Your task to perform on an android device: Go to Amazon Image 0: 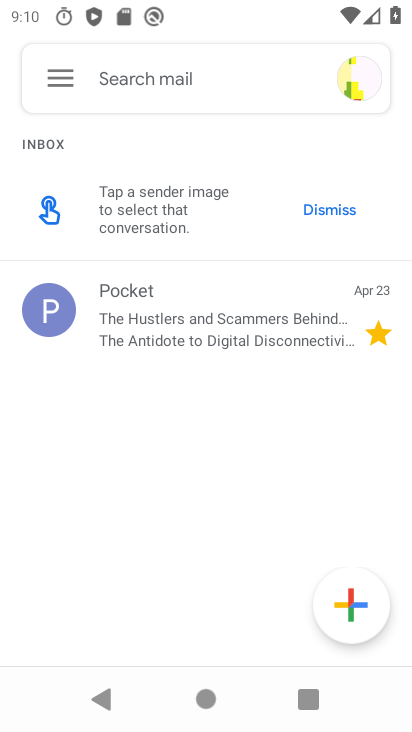
Step 0: click (202, 706)
Your task to perform on an android device: Go to Amazon Image 1: 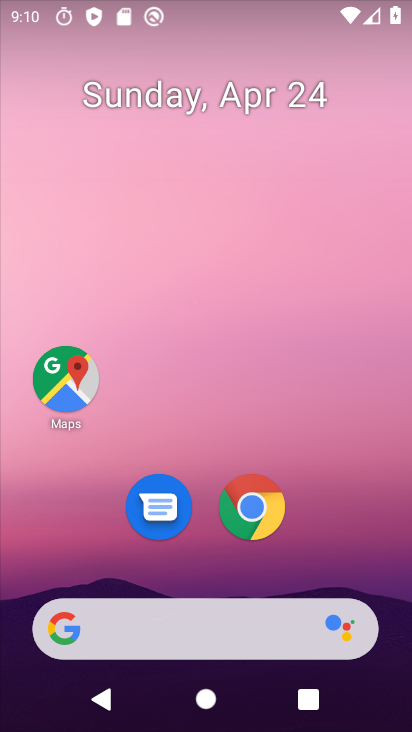
Step 1: drag from (334, 468) to (314, 49)
Your task to perform on an android device: Go to Amazon Image 2: 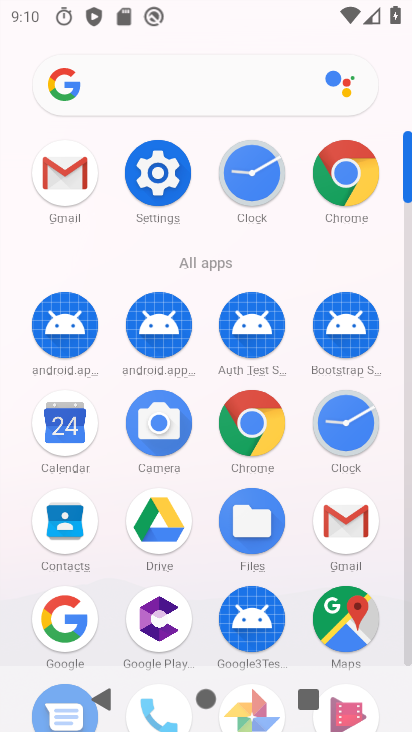
Step 2: drag from (394, 571) to (409, 386)
Your task to perform on an android device: Go to Amazon Image 3: 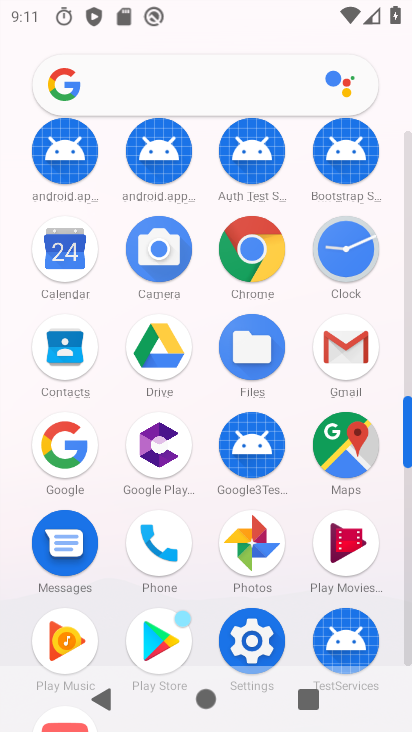
Step 3: drag from (388, 572) to (398, 145)
Your task to perform on an android device: Go to Amazon Image 4: 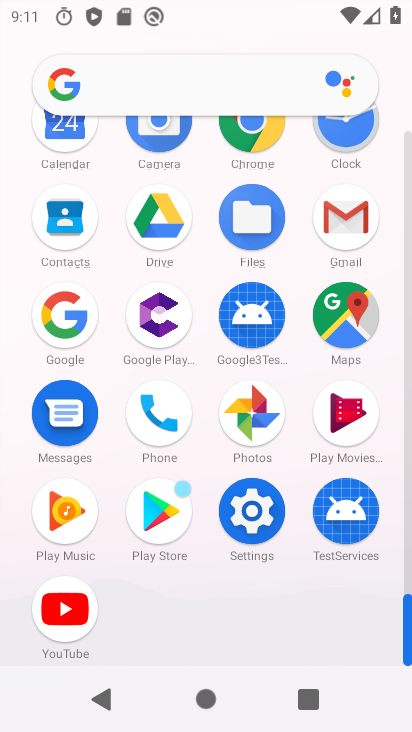
Step 4: click (239, 126)
Your task to perform on an android device: Go to Amazon Image 5: 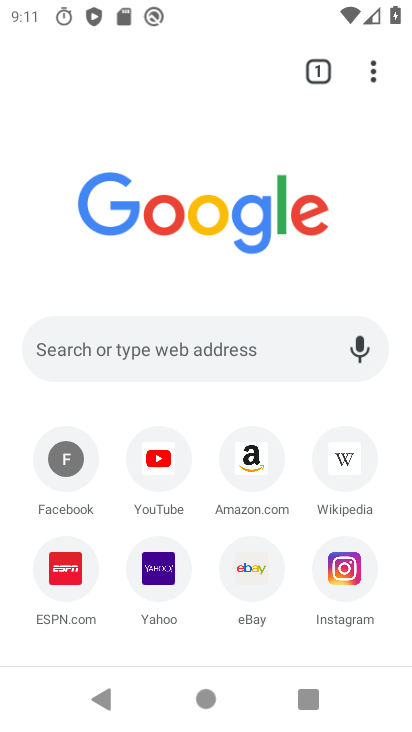
Step 5: drag from (385, 586) to (353, 336)
Your task to perform on an android device: Go to Amazon Image 6: 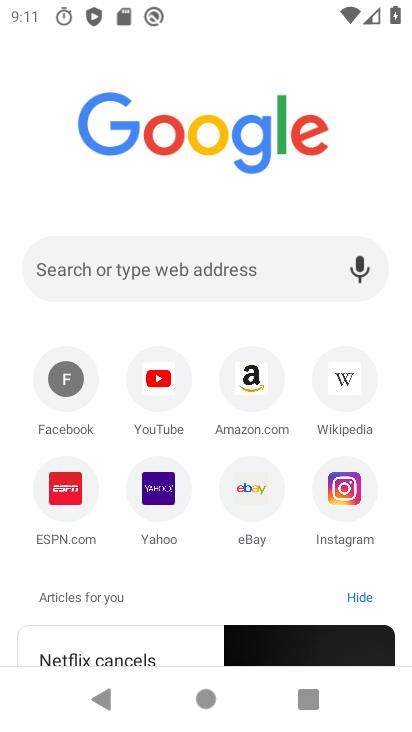
Step 6: click (358, 593)
Your task to perform on an android device: Go to Amazon Image 7: 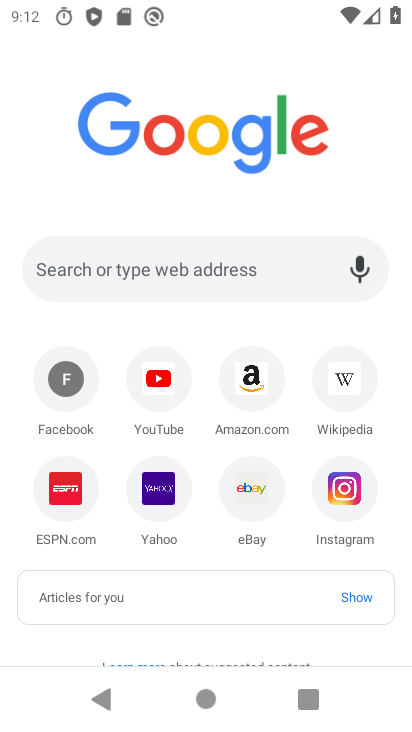
Step 7: click (176, 291)
Your task to perform on an android device: Go to Amazon Image 8: 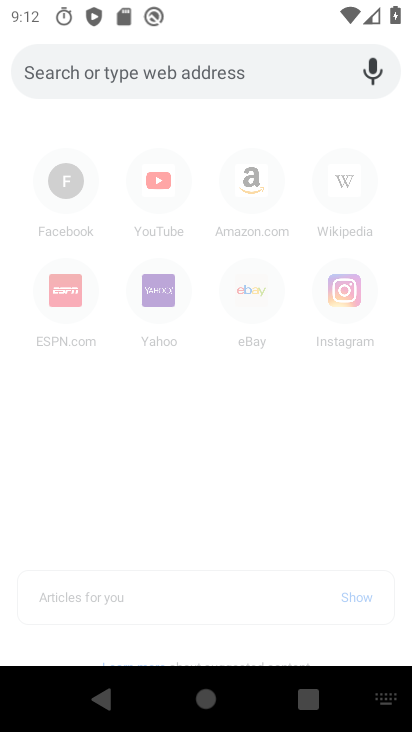
Step 8: click (255, 193)
Your task to perform on an android device: Go to Amazon Image 9: 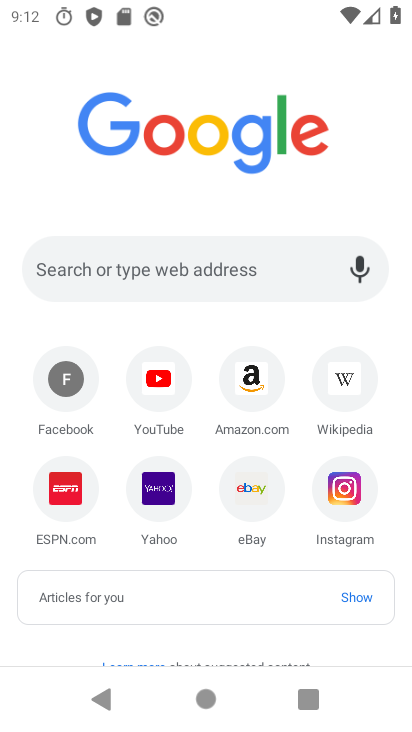
Step 9: click (259, 390)
Your task to perform on an android device: Go to Amazon Image 10: 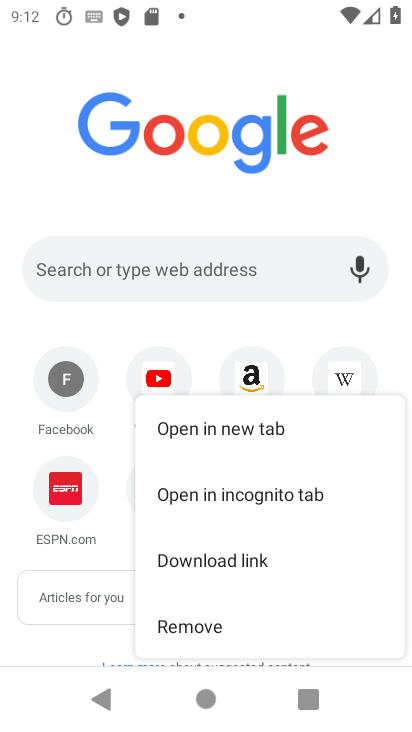
Step 10: click (253, 376)
Your task to perform on an android device: Go to Amazon Image 11: 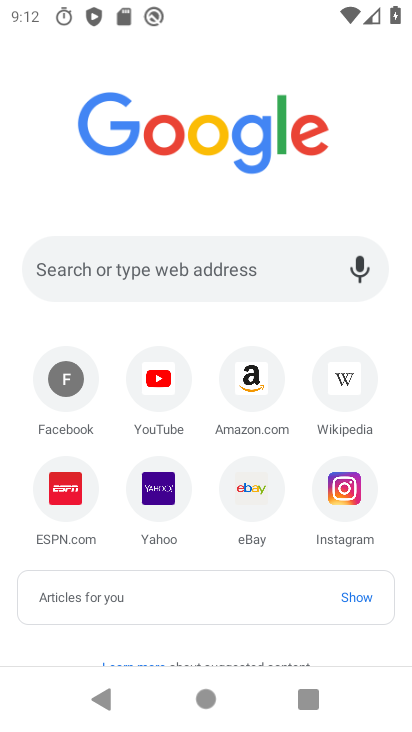
Step 11: click (253, 375)
Your task to perform on an android device: Go to Amazon Image 12: 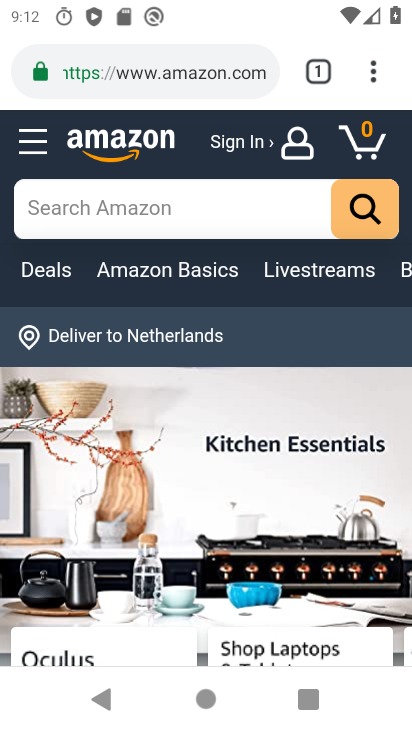
Step 12: task complete